Your task to perform on an android device: turn on notifications settings in the gmail app Image 0: 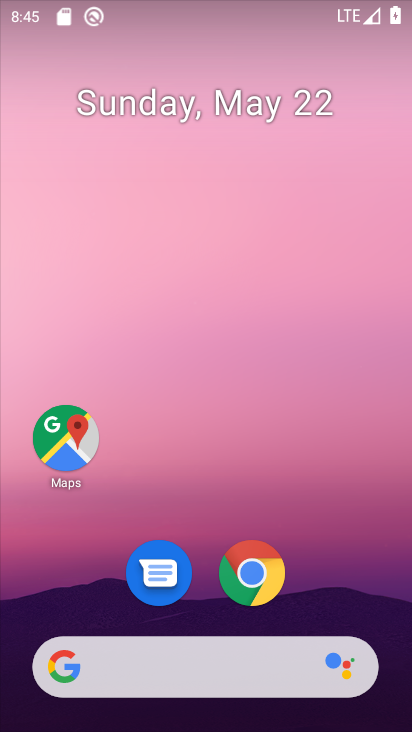
Step 0: drag from (274, 542) to (279, 106)
Your task to perform on an android device: turn on notifications settings in the gmail app Image 1: 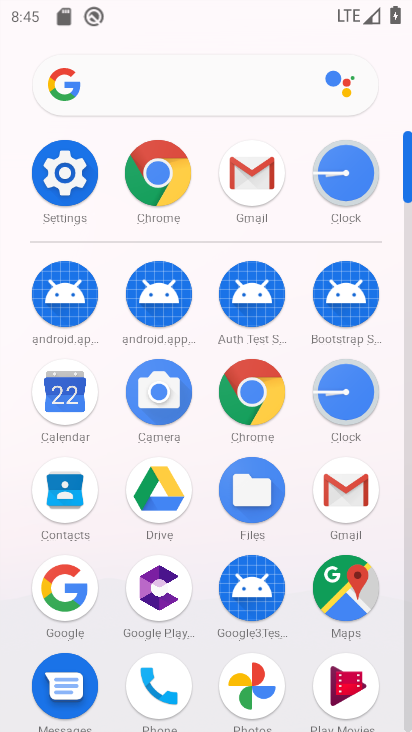
Step 1: click (332, 483)
Your task to perform on an android device: turn on notifications settings in the gmail app Image 2: 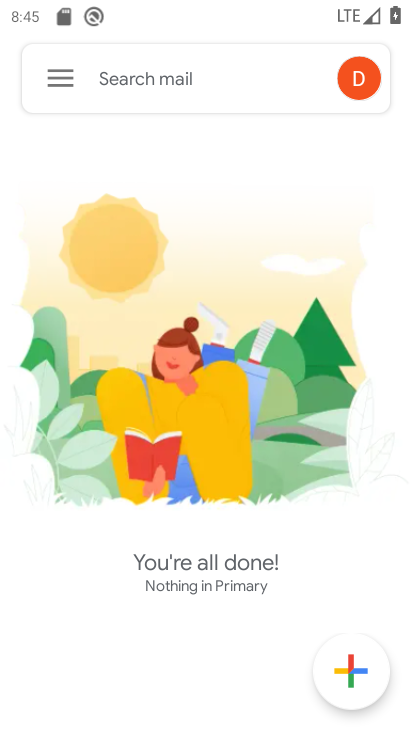
Step 2: drag from (183, 565) to (224, 246)
Your task to perform on an android device: turn on notifications settings in the gmail app Image 3: 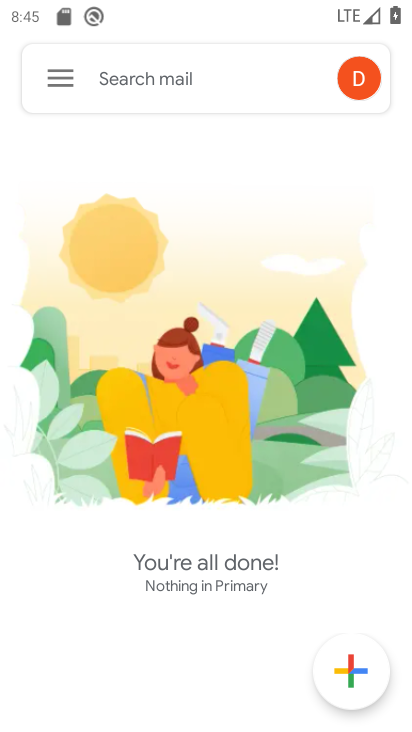
Step 3: click (65, 91)
Your task to perform on an android device: turn on notifications settings in the gmail app Image 4: 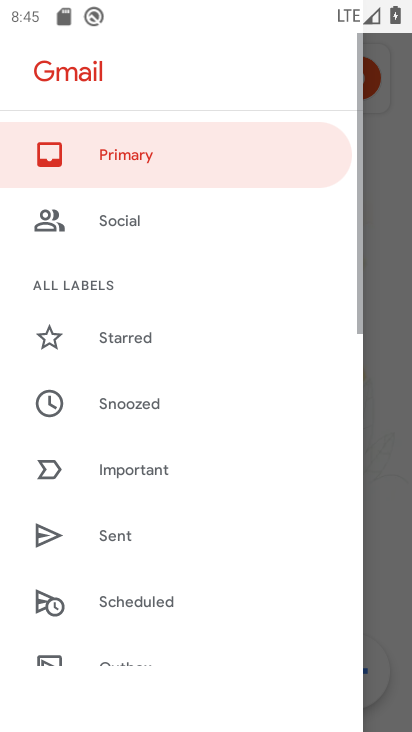
Step 4: drag from (172, 584) to (199, 199)
Your task to perform on an android device: turn on notifications settings in the gmail app Image 5: 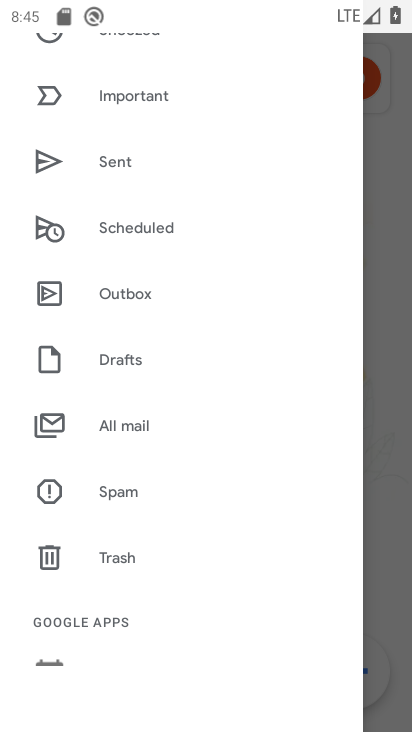
Step 5: drag from (114, 559) to (211, 143)
Your task to perform on an android device: turn on notifications settings in the gmail app Image 6: 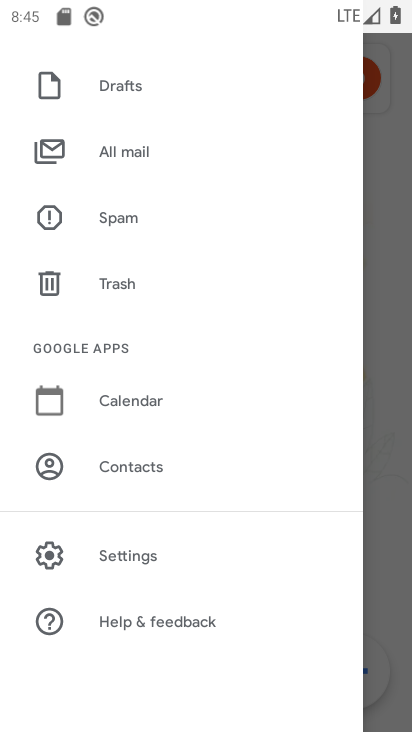
Step 6: click (104, 547)
Your task to perform on an android device: turn on notifications settings in the gmail app Image 7: 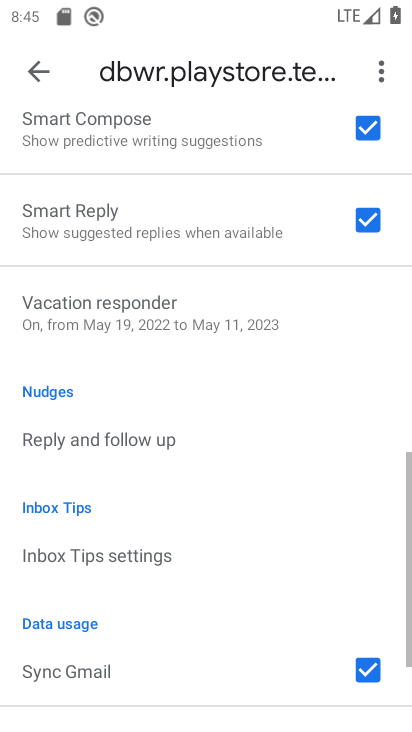
Step 7: drag from (175, 560) to (241, 179)
Your task to perform on an android device: turn on notifications settings in the gmail app Image 8: 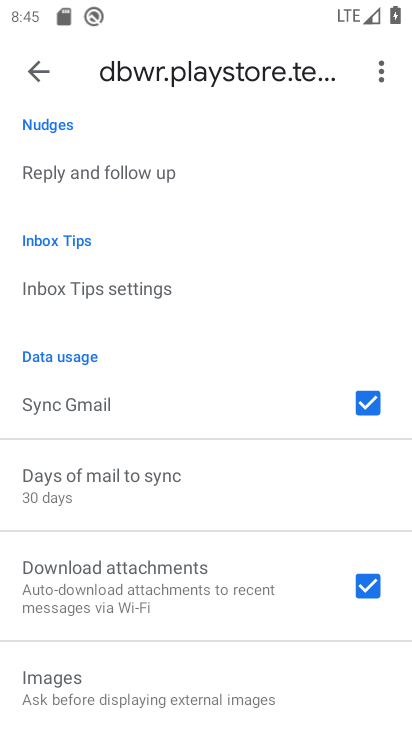
Step 8: drag from (172, 230) to (285, 714)
Your task to perform on an android device: turn on notifications settings in the gmail app Image 9: 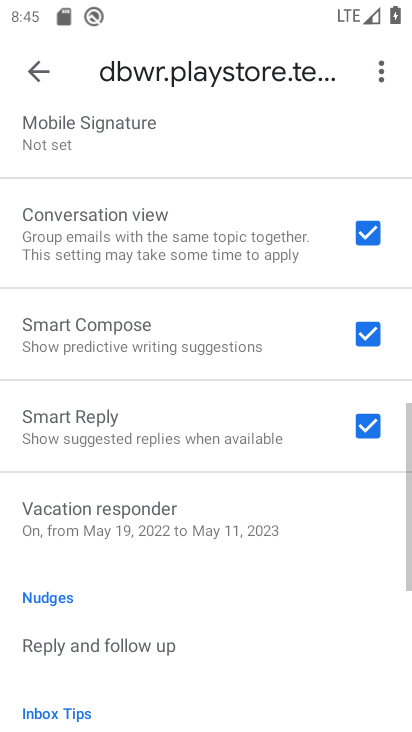
Step 9: drag from (187, 303) to (271, 717)
Your task to perform on an android device: turn on notifications settings in the gmail app Image 10: 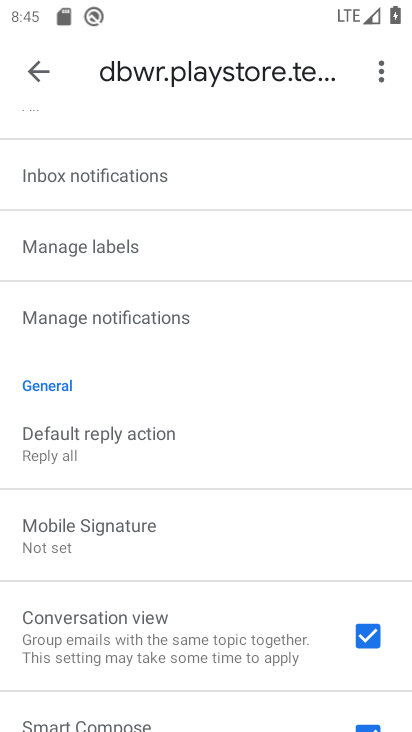
Step 10: click (106, 325)
Your task to perform on an android device: turn on notifications settings in the gmail app Image 11: 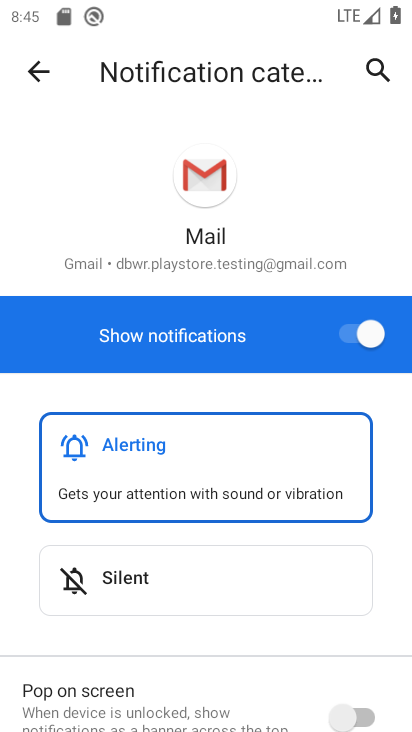
Step 11: task complete